Your task to perform on an android device: install app "Facebook Lite" Image 0: 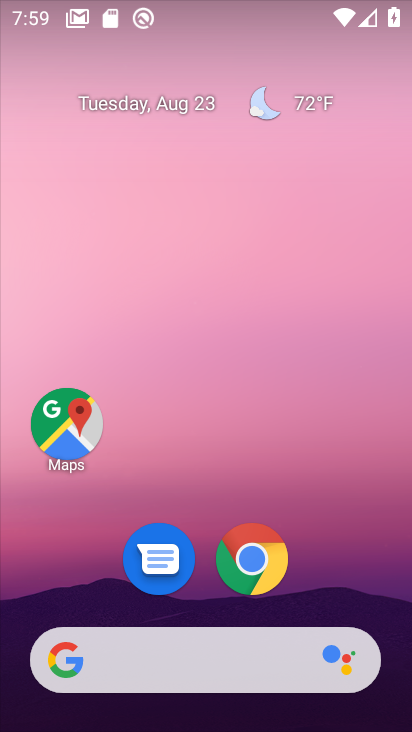
Step 0: drag from (202, 475) to (202, 163)
Your task to perform on an android device: install app "Facebook Lite" Image 1: 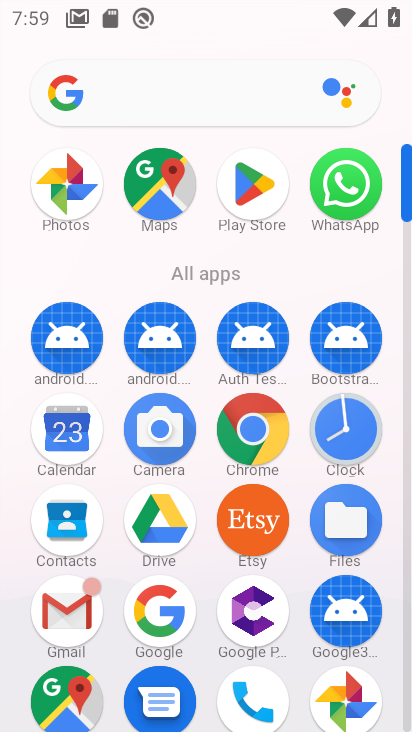
Step 1: click (234, 189)
Your task to perform on an android device: install app "Facebook Lite" Image 2: 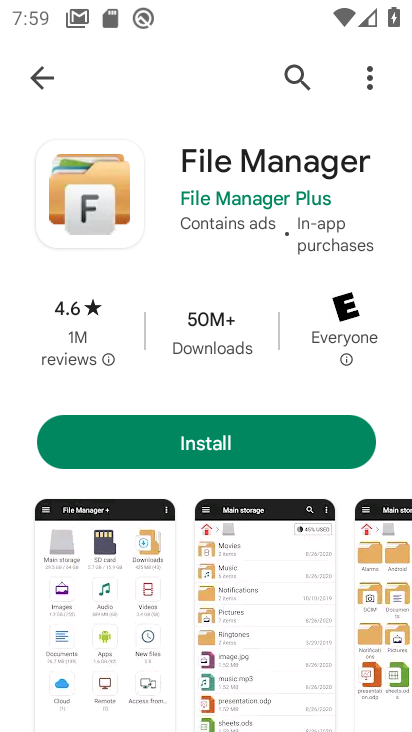
Step 2: click (294, 73)
Your task to perform on an android device: install app "Facebook Lite" Image 3: 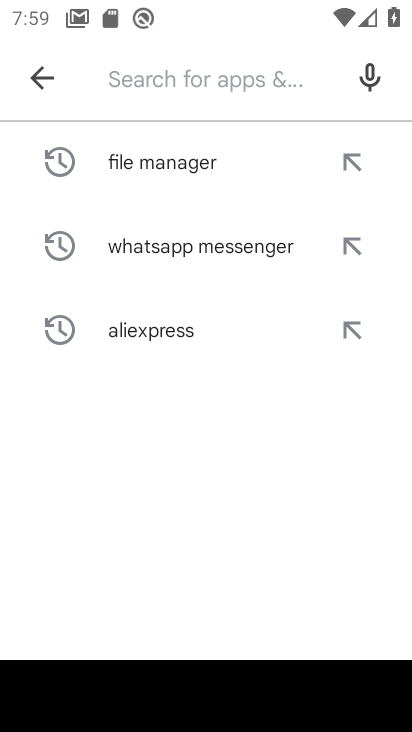
Step 3: type "Facebook Lite"
Your task to perform on an android device: install app "Facebook Lite" Image 4: 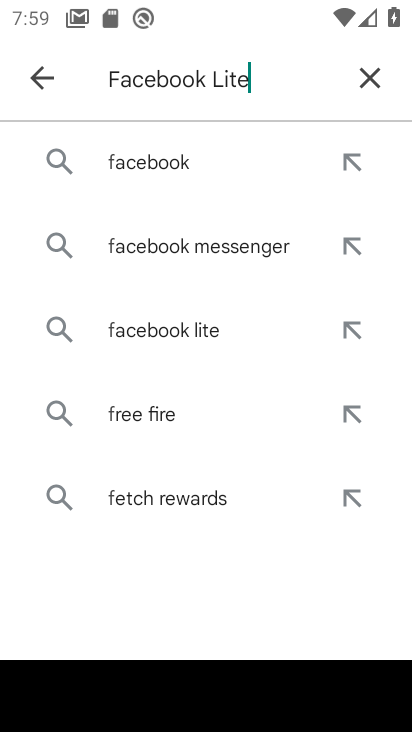
Step 4: type ""
Your task to perform on an android device: install app "Facebook Lite" Image 5: 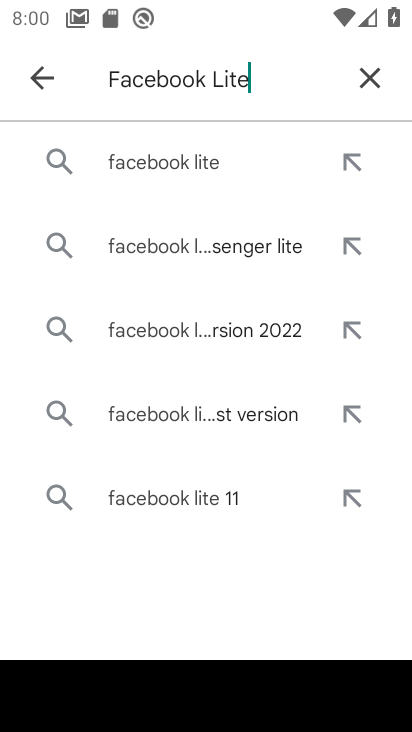
Step 5: click (163, 162)
Your task to perform on an android device: install app "Facebook Lite" Image 6: 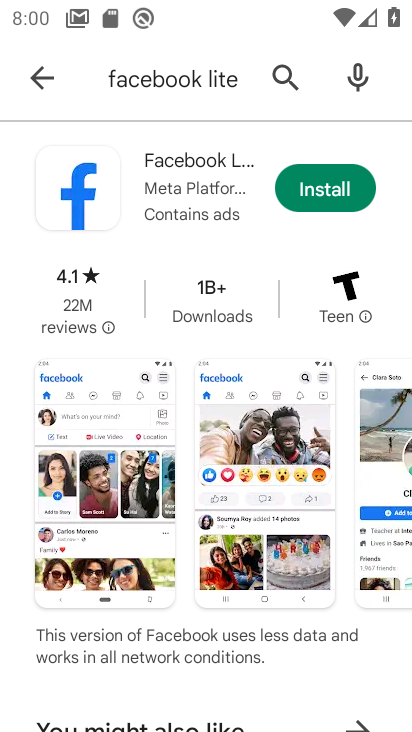
Step 6: click (339, 182)
Your task to perform on an android device: install app "Facebook Lite" Image 7: 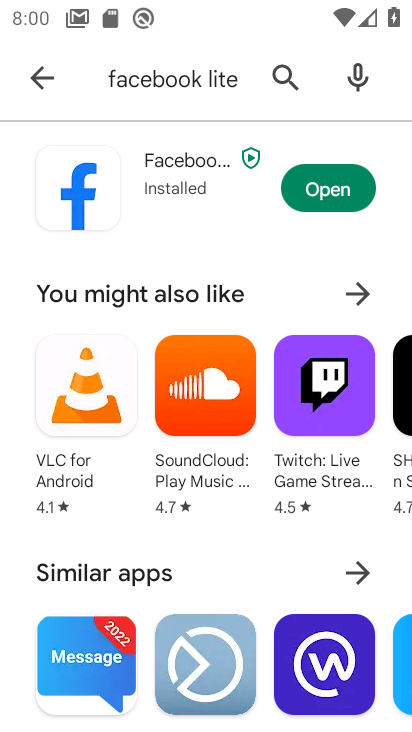
Step 7: task complete